Your task to perform on an android device: add a label to a message in the gmail app Image 0: 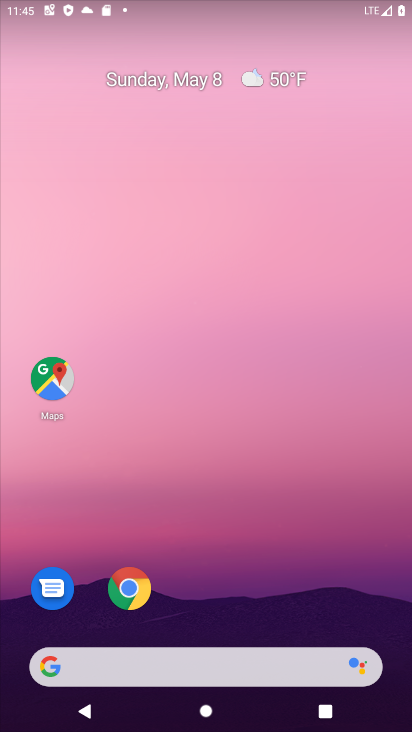
Step 0: drag from (266, 511) to (252, 86)
Your task to perform on an android device: add a label to a message in the gmail app Image 1: 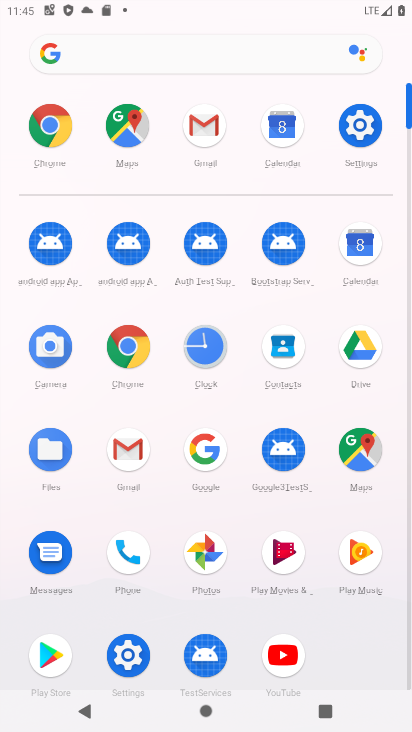
Step 1: click (121, 435)
Your task to perform on an android device: add a label to a message in the gmail app Image 2: 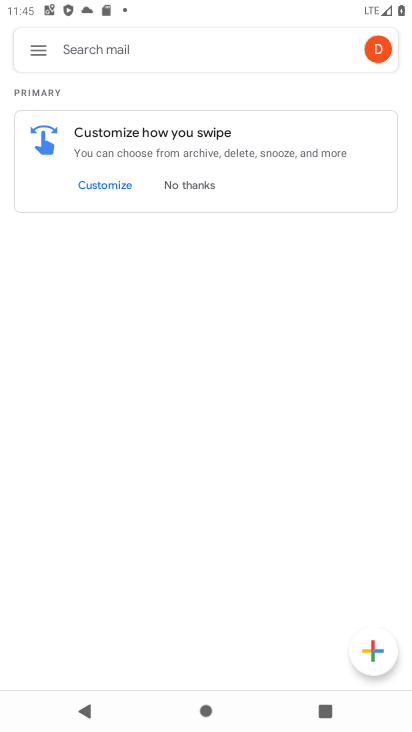
Step 2: click (33, 40)
Your task to perform on an android device: add a label to a message in the gmail app Image 3: 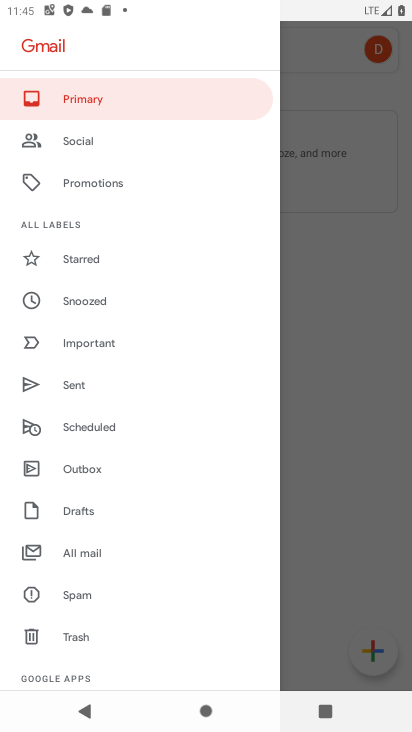
Step 3: click (96, 541)
Your task to perform on an android device: add a label to a message in the gmail app Image 4: 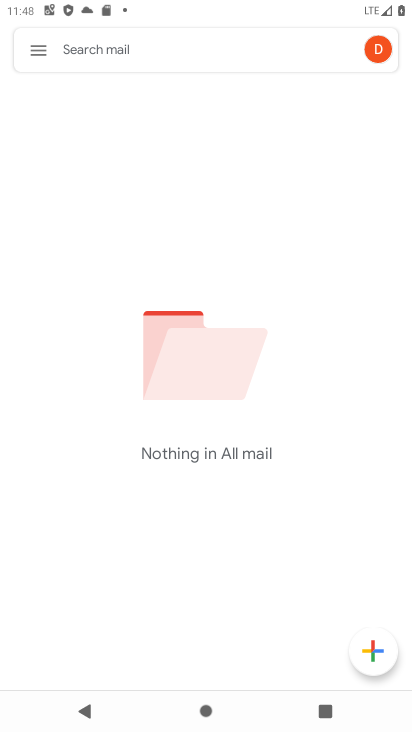
Step 4: task complete